Your task to perform on an android device: open device folders in google photos Image 0: 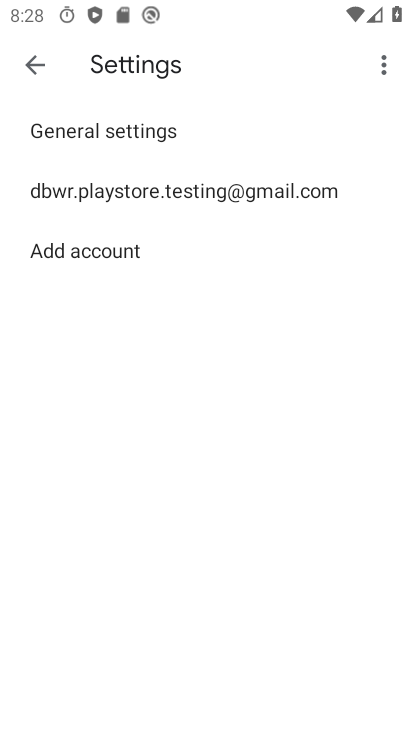
Step 0: press back button
Your task to perform on an android device: open device folders in google photos Image 1: 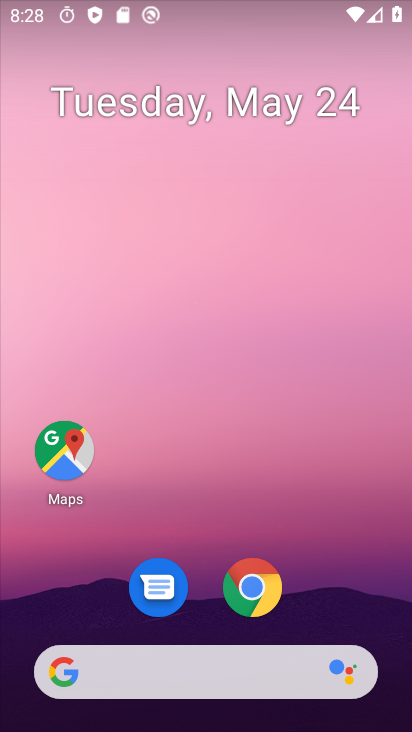
Step 1: drag from (323, 585) to (274, 190)
Your task to perform on an android device: open device folders in google photos Image 2: 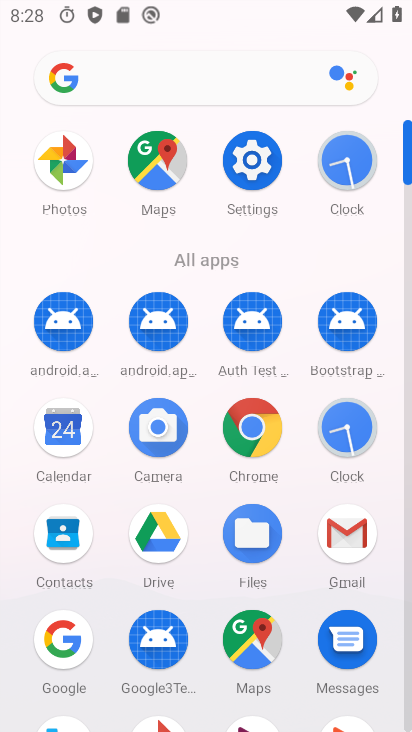
Step 2: click (64, 162)
Your task to perform on an android device: open device folders in google photos Image 3: 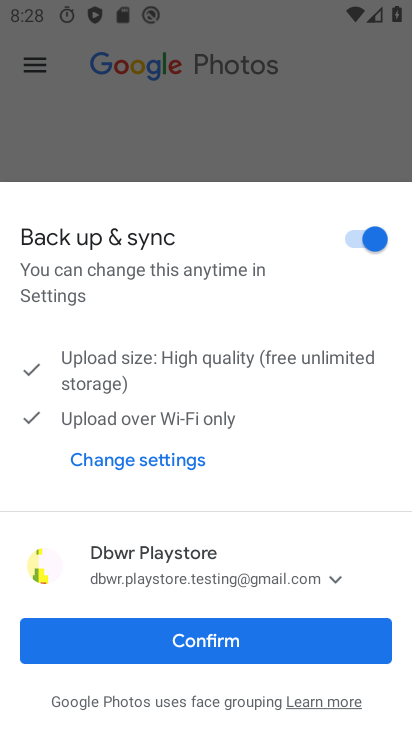
Step 3: click (228, 640)
Your task to perform on an android device: open device folders in google photos Image 4: 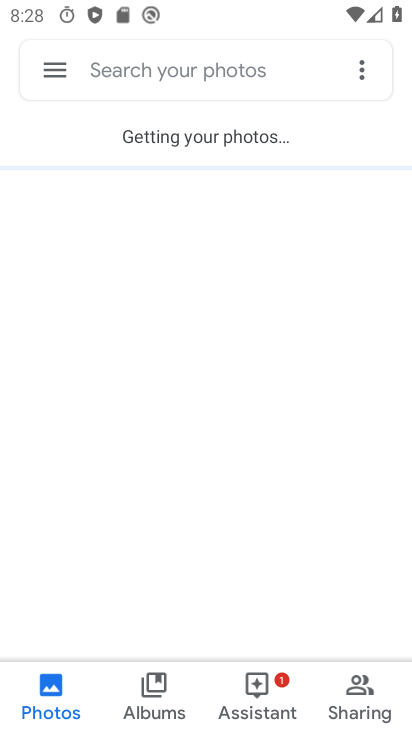
Step 4: click (59, 71)
Your task to perform on an android device: open device folders in google photos Image 5: 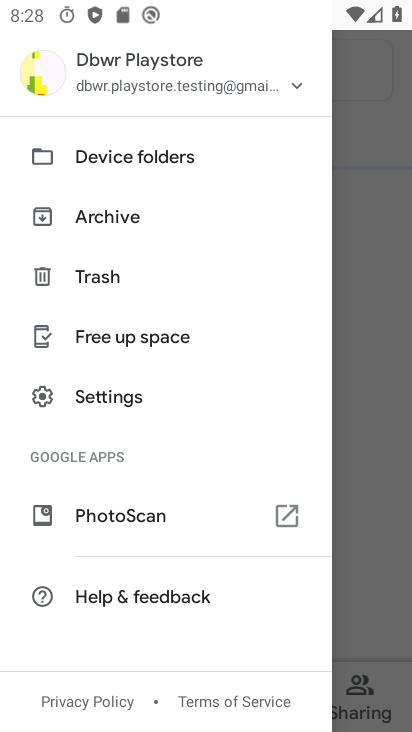
Step 5: click (144, 156)
Your task to perform on an android device: open device folders in google photos Image 6: 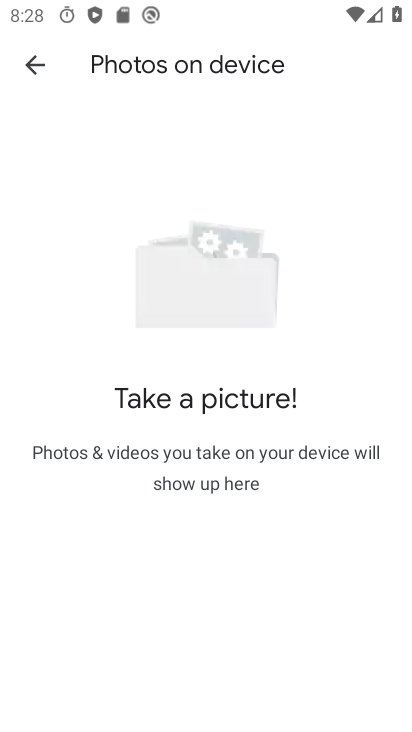
Step 6: task complete